Your task to perform on an android device: read, delete, or share a saved page in the chrome app Image 0: 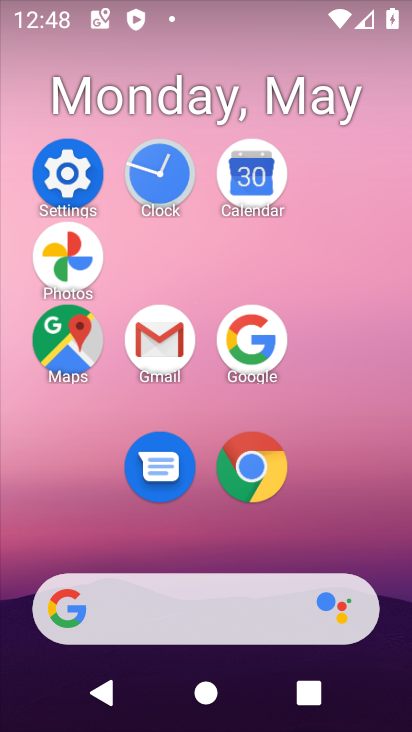
Step 0: click (276, 479)
Your task to perform on an android device: read, delete, or share a saved page in the chrome app Image 1: 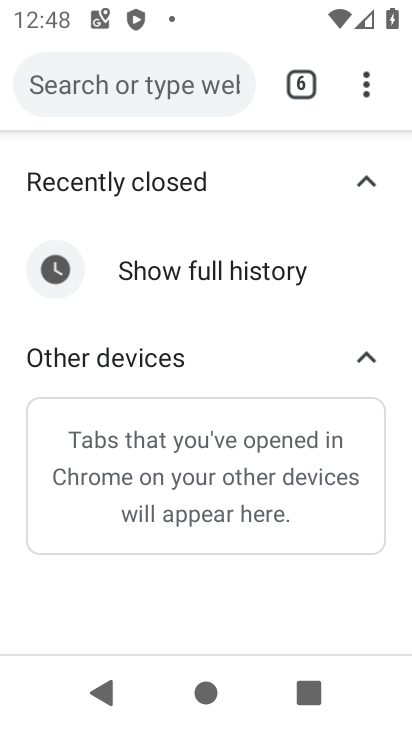
Step 1: click (375, 78)
Your task to perform on an android device: read, delete, or share a saved page in the chrome app Image 2: 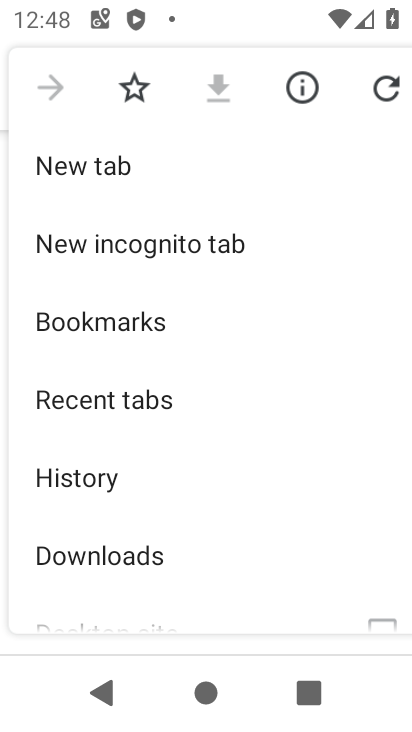
Step 2: click (157, 560)
Your task to perform on an android device: read, delete, or share a saved page in the chrome app Image 3: 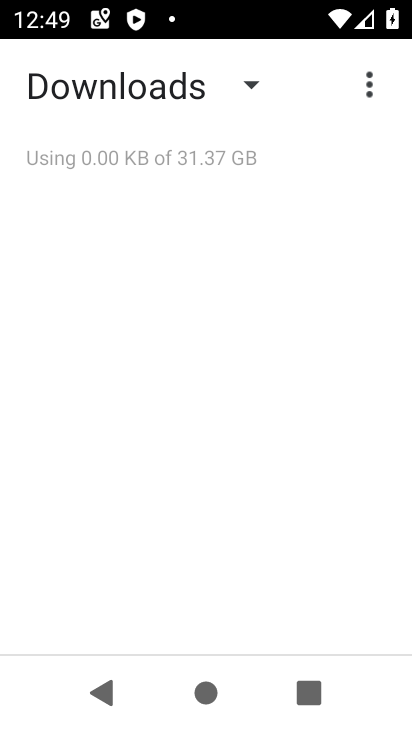
Step 3: task complete